Your task to perform on an android device: turn pop-ups on in chrome Image 0: 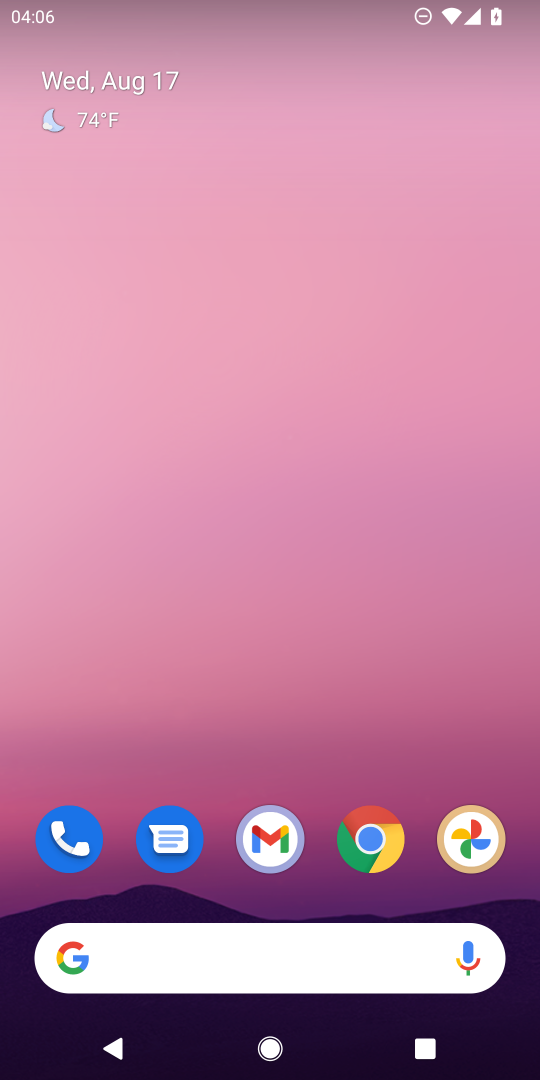
Step 0: click (375, 851)
Your task to perform on an android device: turn pop-ups on in chrome Image 1: 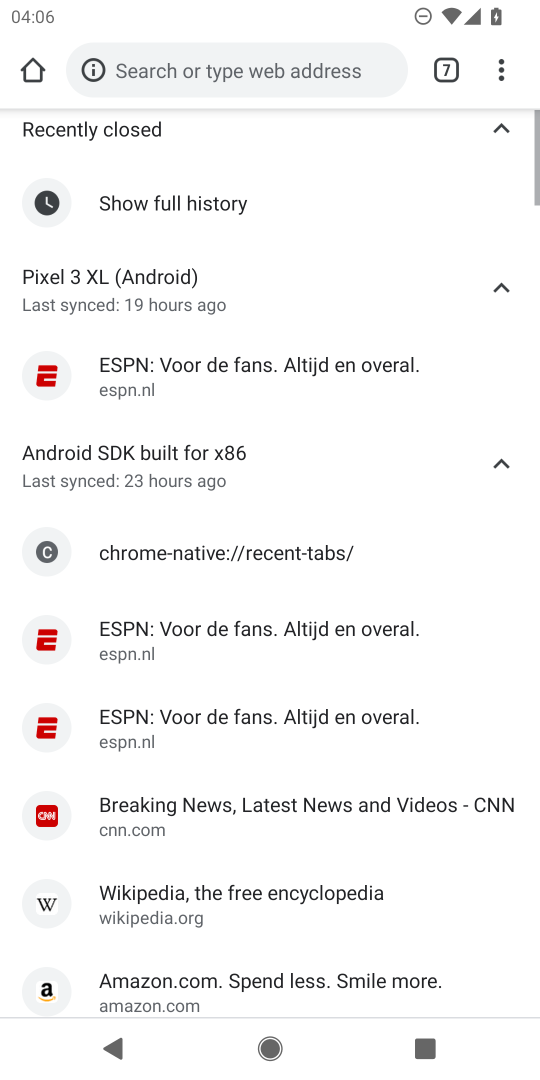
Step 1: press home button
Your task to perform on an android device: turn pop-ups on in chrome Image 2: 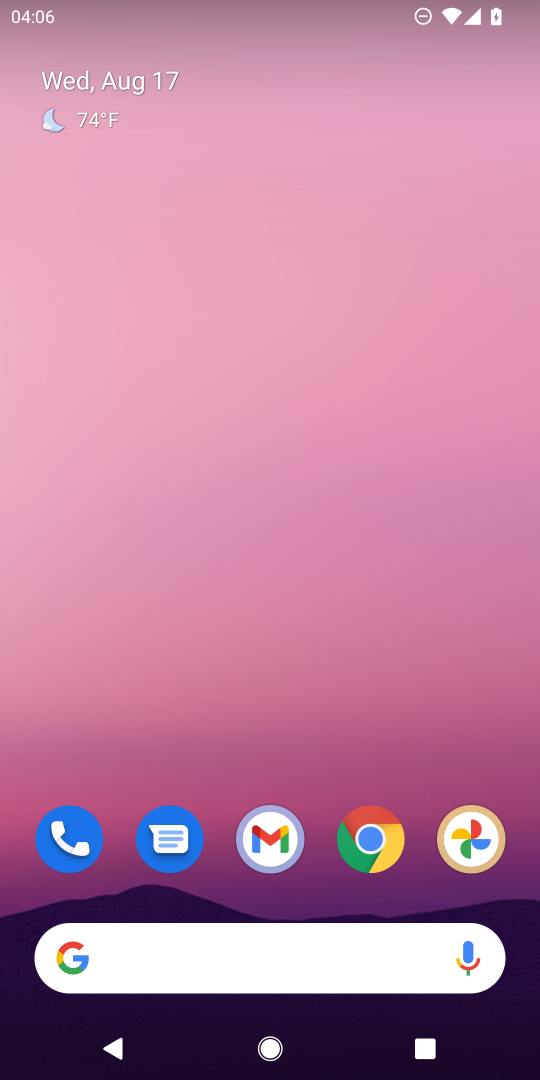
Step 2: click (373, 839)
Your task to perform on an android device: turn pop-ups on in chrome Image 3: 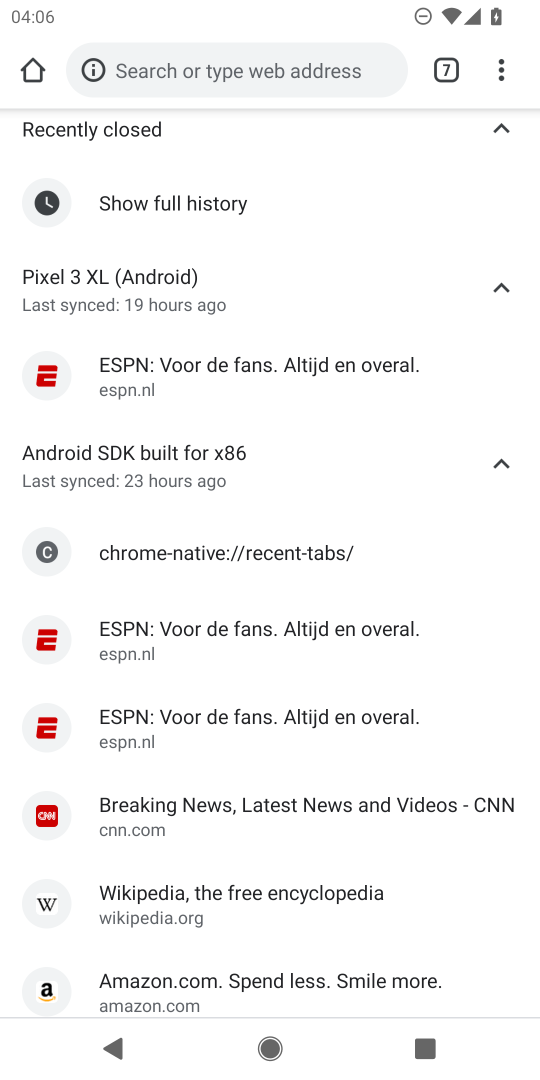
Step 3: click (502, 77)
Your task to perform on an android device: turn pop-ups on in chrome Image 4: 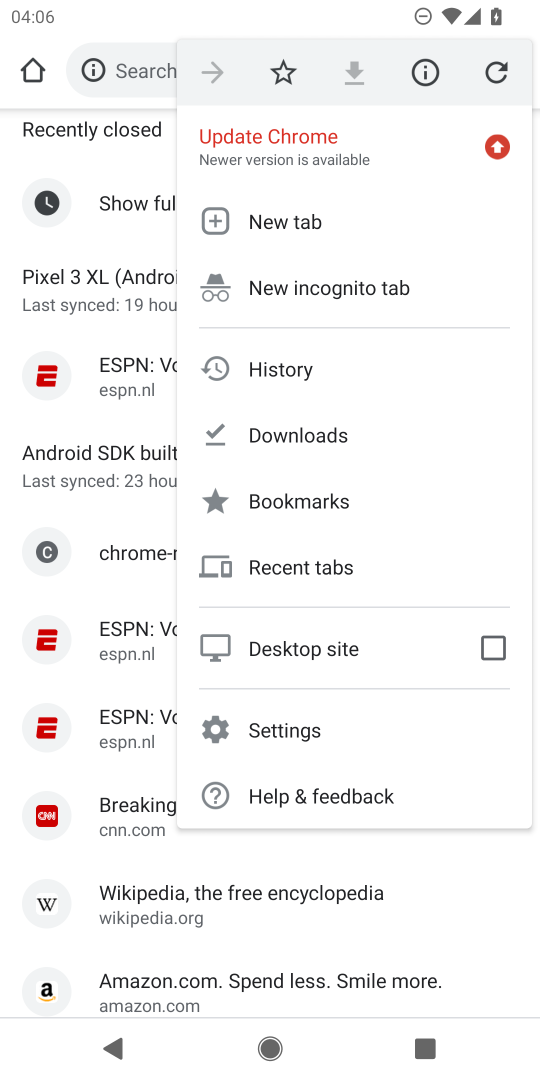
Step 4: click (261, 730)
Your task to perform on an android device: turn pop-ups on in chrome Image 5: 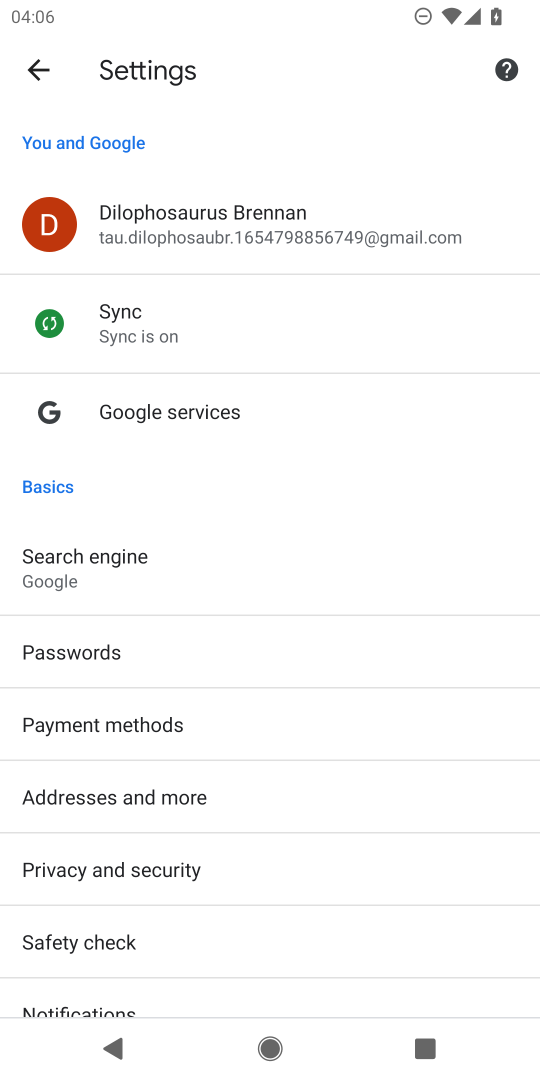
Step 5: drag from (126, 970) to (140, 498)
Your task to perform on an android device: turn pop-ups on in chrome Image 6: 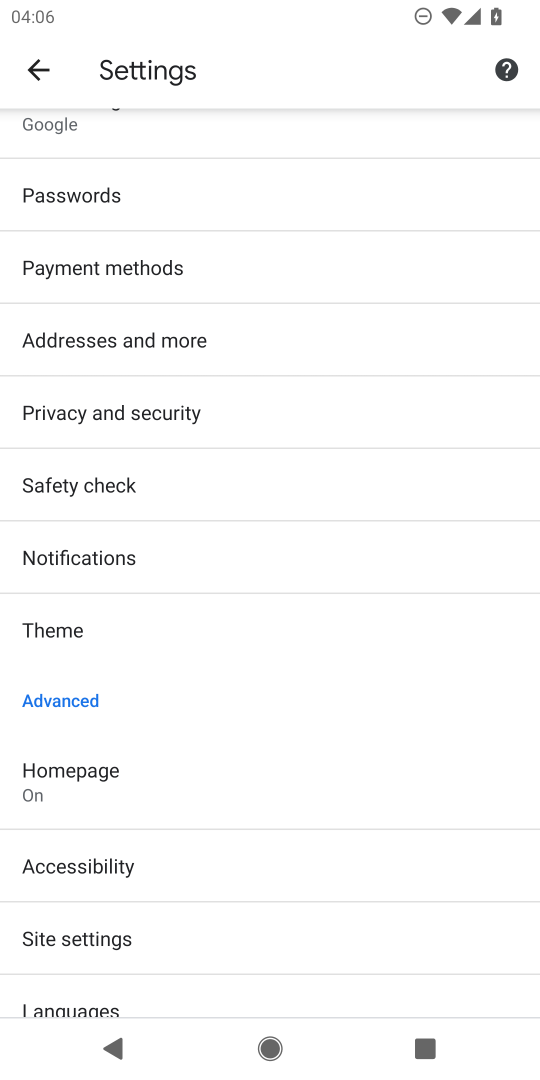
Step 6: click (118, 936)
Your task to perform on an android device: turn pop-ups on in chrome Image 7: 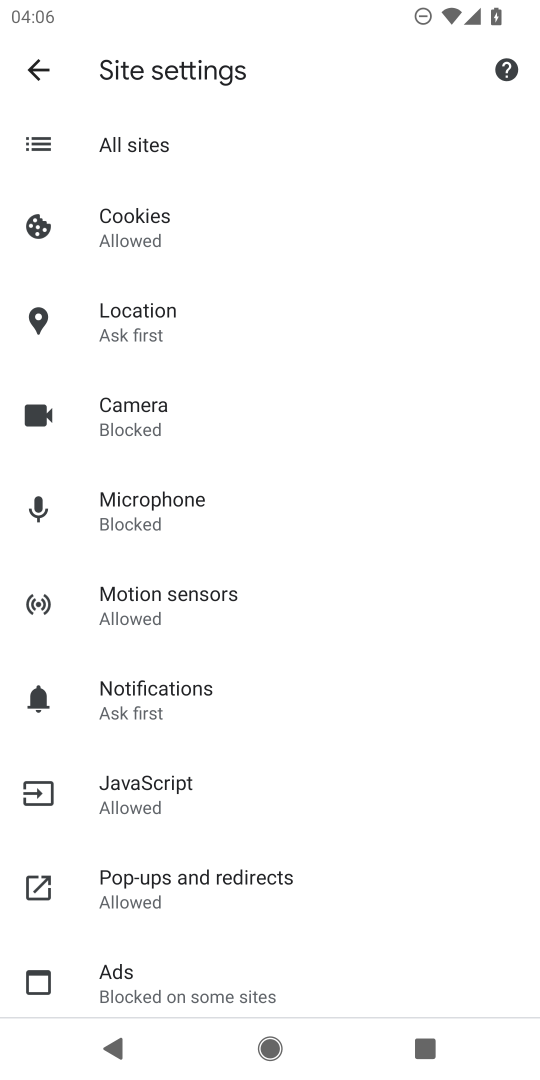
Step 7: click (137, 878)
Your task to perform on an android device: turn pop-ups on in chrome Image 8: 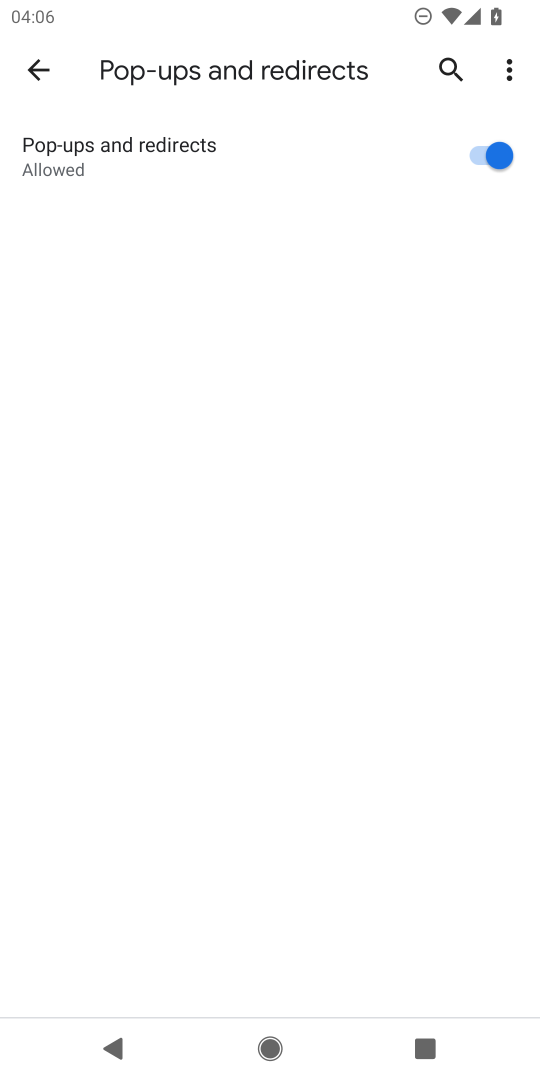
Step 8: task complete